Your task to perform on an android device: stop showing notifications on the lock screen Image 0: 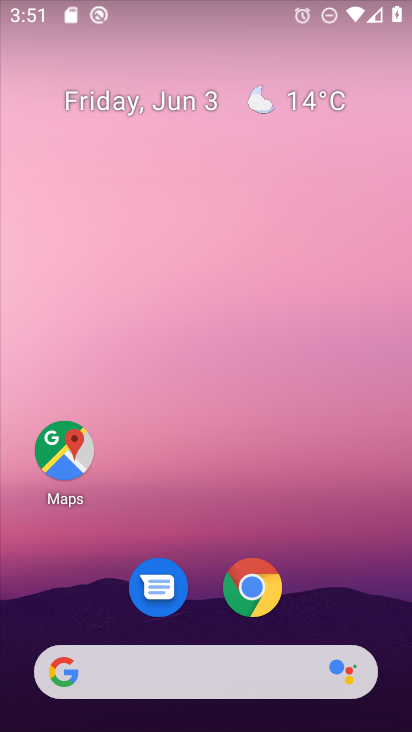
Step 0: drag from (253, 721) to (257, 81)
Your task to perform on an android device: stop showing notifications on the lock screen Image 1: 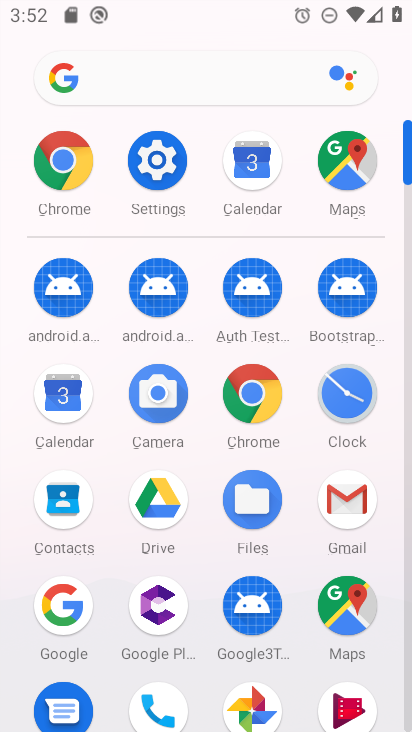
Step 1: click (157, 176)
Your task to perform on an android device: stop showing notifications on the lock screen Image 2: 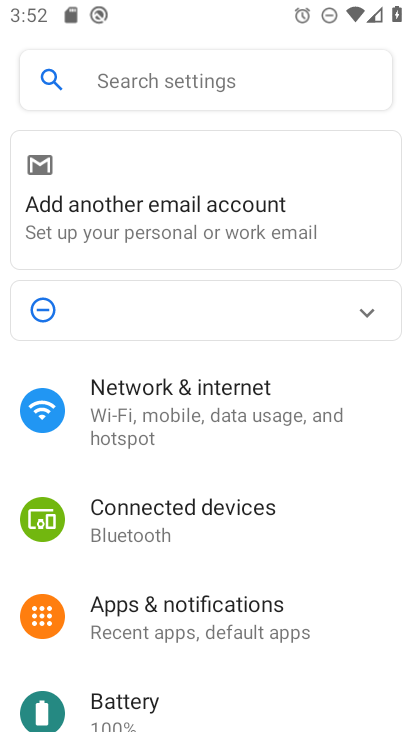
Step 2: click (178, 611)
Your task to perform on an android device: stop showing notifications on the lock screen Image 3: 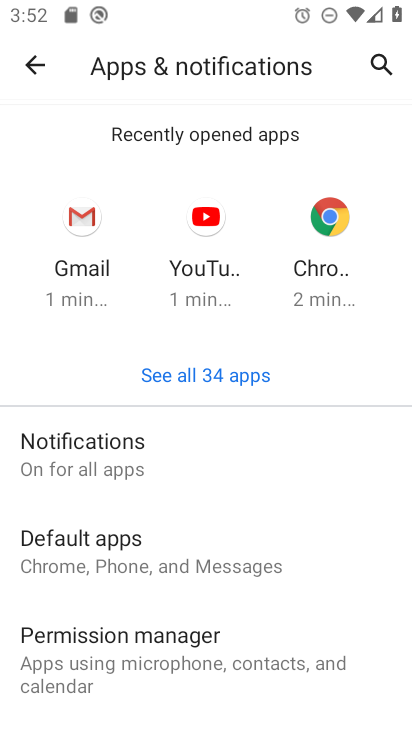
Step 3: click (74, 462)
Your task to perform on an android device: stop showing notifications on the lock screen Image 4: 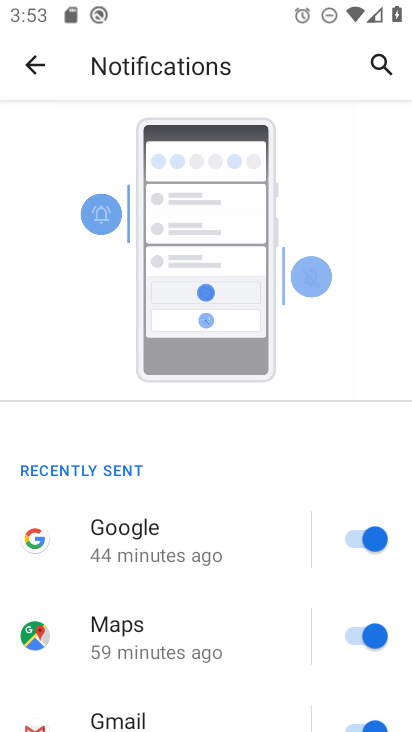
Step 4: drag from (122, 709) to (124, 367)
Your task to perform on an android device: stop showing notifications on the lock screen Image 5: 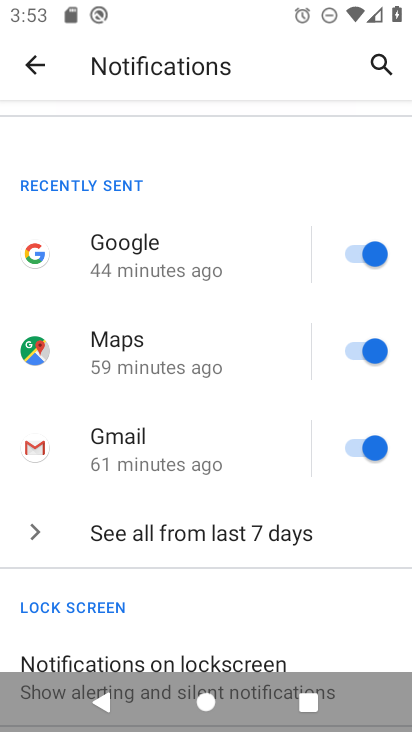
Step 5: drag from (156, 652) to (158, 349)
Your task to perform on an android device: stop showing notifications on the lock screen Image 6: 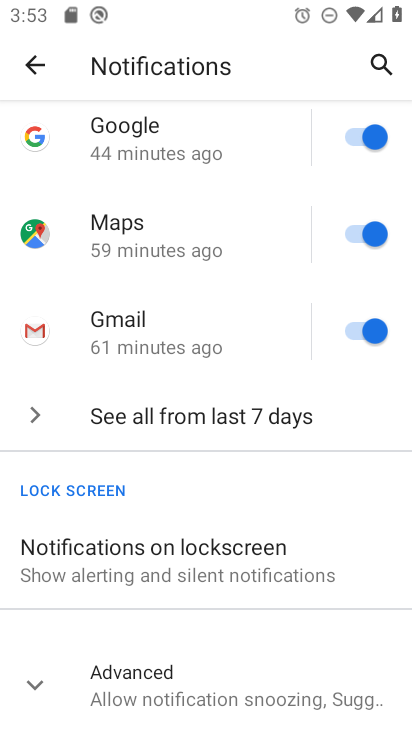
Step 6: click (141, 560)
Your task to perform on an android device: stop showing notifications on the lock screen Image 7: 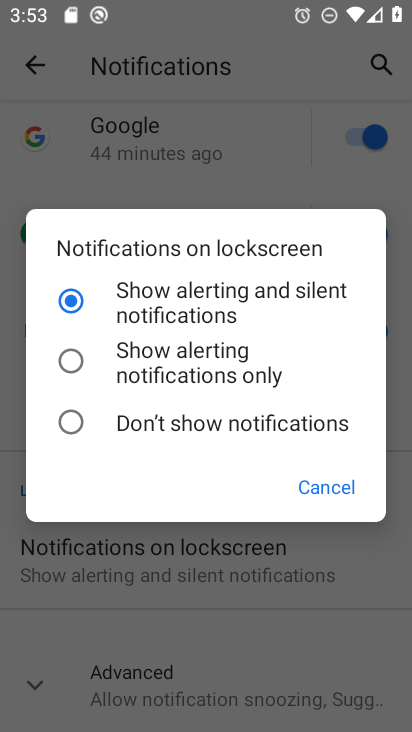
Step 7: click (69, 419)
Your task to perform on an android device: stop showing notifications on the lock screen Image 8: 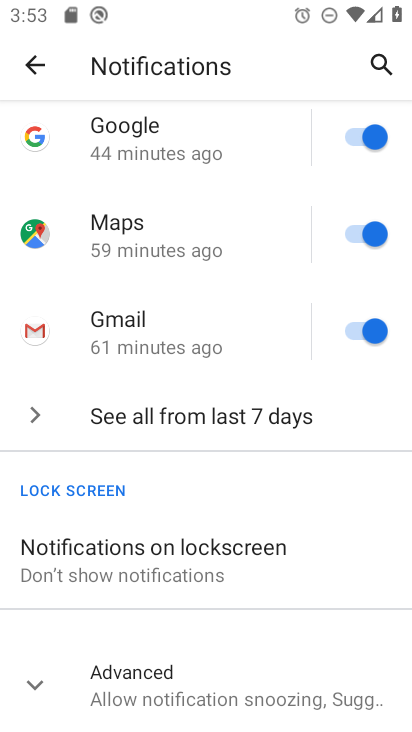
Step 8: task complete